Your task to perform on an android device: Go to Amazon Image 0: 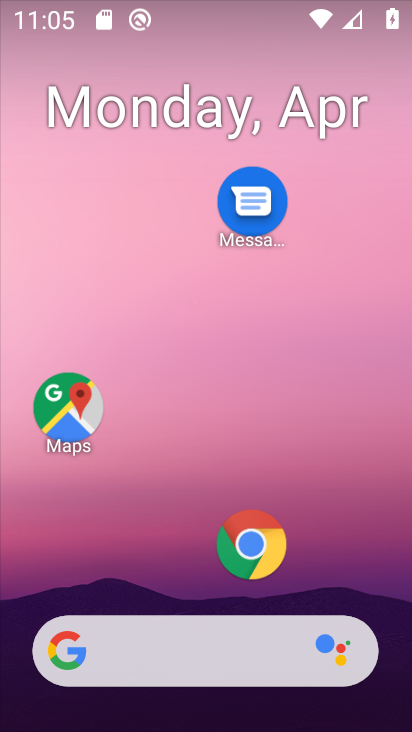
Step 0: press home button
Your task to perform on an android device: Go to Amazon Image 1: 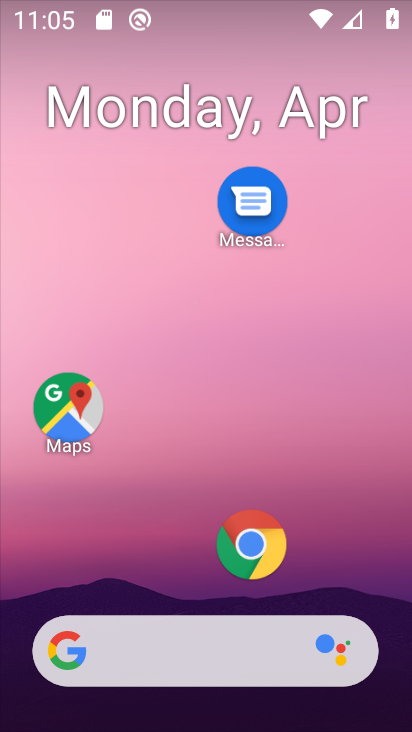
Step 1: click (250, 548)
Your task to perform on an android device: Go to Amazon Image 2: 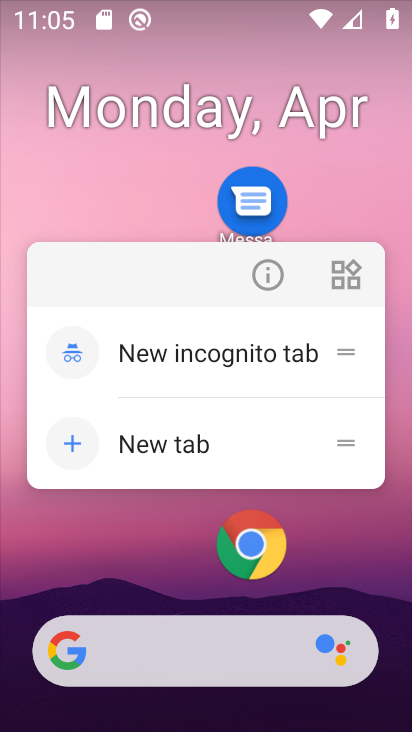
Step 2: click (317, 550)
Your task to perform on an android device: Go to Amazon Image 3: 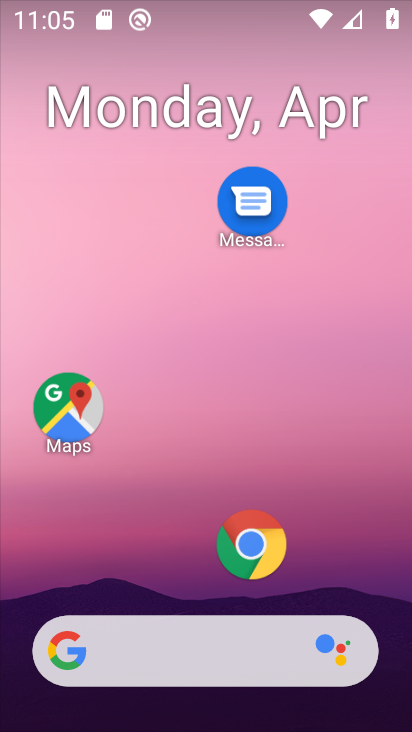
Step 3: drag from (188, 578) to (211, 147)
Your task to perform on an android device: Go to Amazon Image 4: 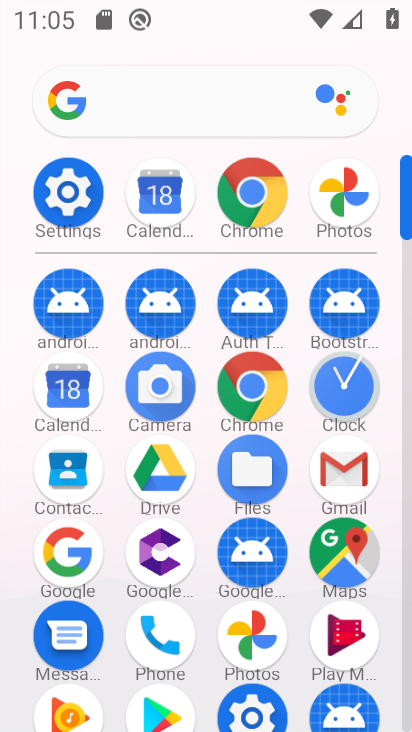
Step 4: click (247, 387)
Your task to perform on an android device: Go to Amazon Image 5: 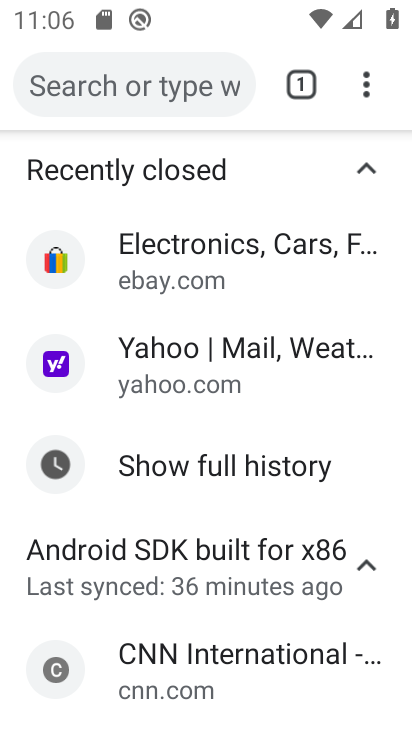
Step 5: click (299, 77)
Your task to perform on an android device: Go to Amazon Image 6: 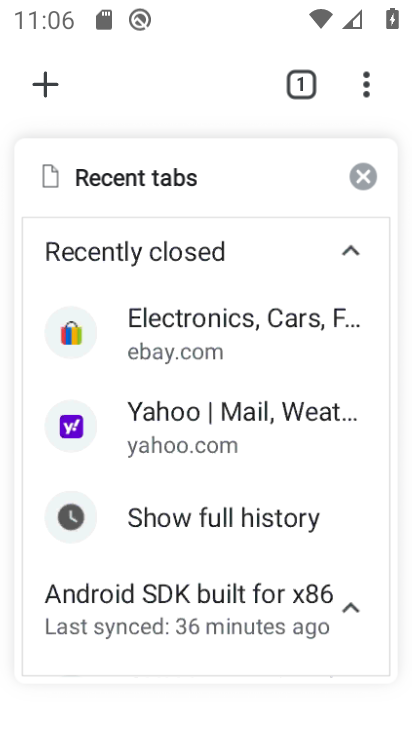
Step 6: click (43, 82)
Your task to perform on an android device: Go to Amazon Image 7: 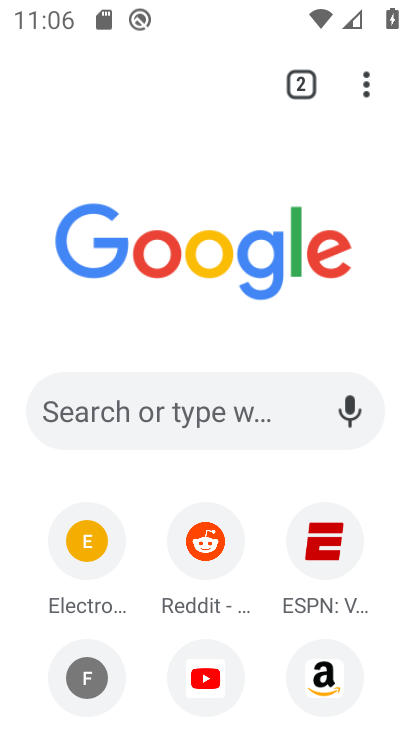
Step 7: click (317, 666)
Your task to perform on an android device: Go to Amazon Image 8: 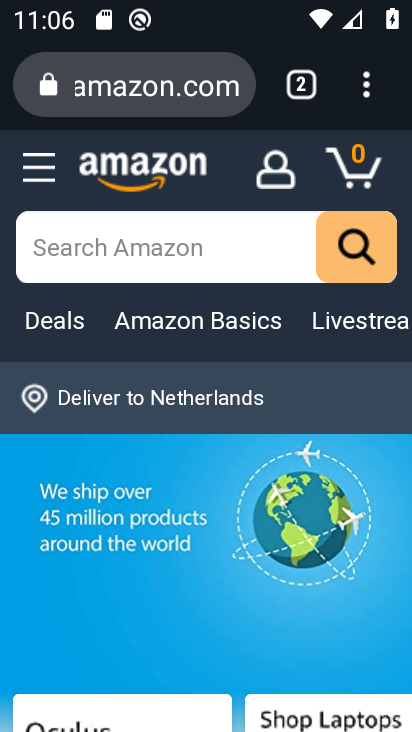
Step 8: task complete